Your task to perform on an android device: turn off location Image 0: 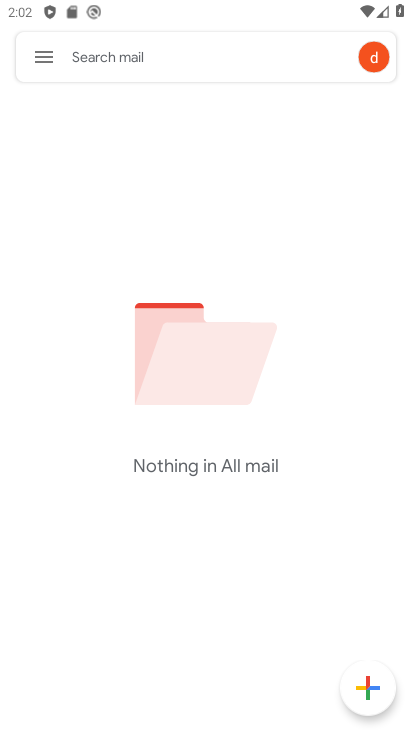
Step 0: press home button
Your task to perform on an android device: turn off location Image 1: 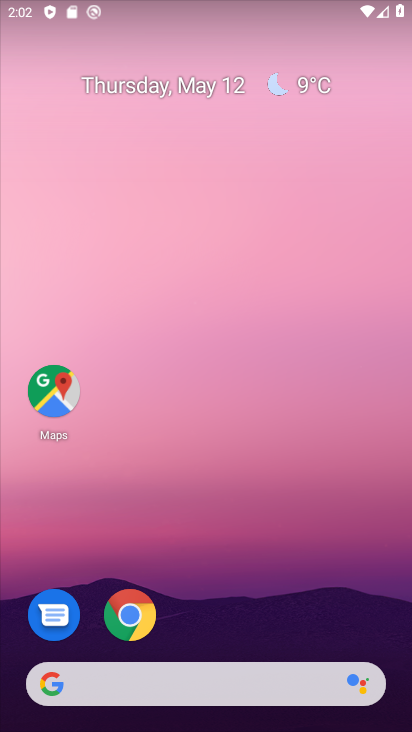
Step 1: drag from (220, 682) to (188, 197)
Your task to perform on an android device: turn off location Image 2: 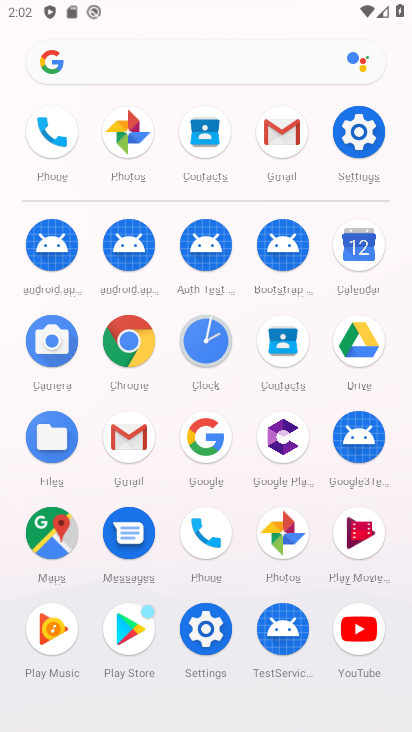
Step 2: click (360, 143)
Your task to perform on an android device: turn off location Image 3: 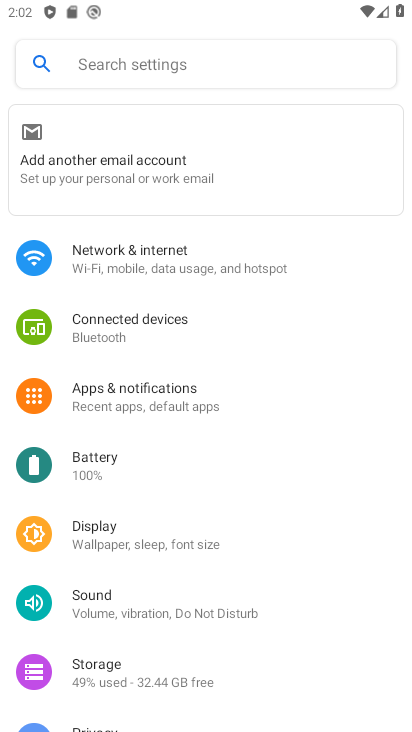
Step 3: drag from (171, 633) to (144, 188)
Your task to perform on an android device: turn off location Image 4: 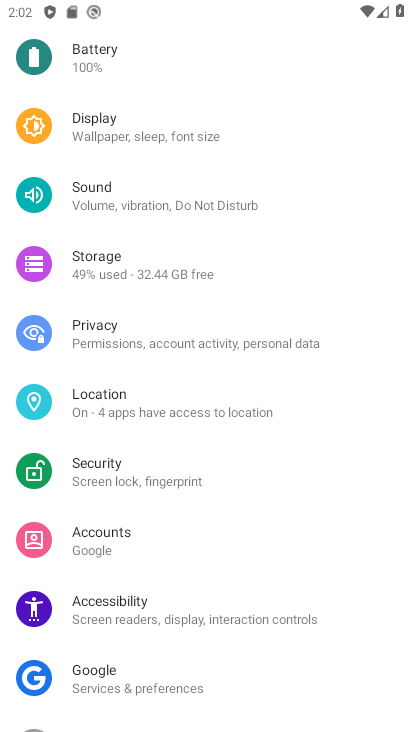
Step 4: click (118, 404)
Your task to perform on an android device: turn off location Image 5: 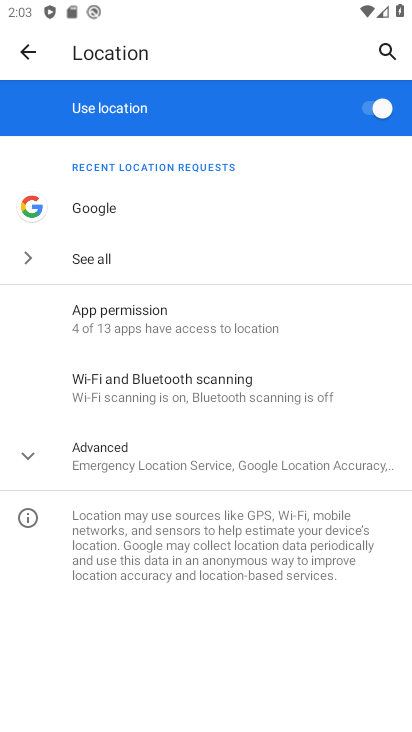
Step 5: click (370, 102)
Your task to perform on an android device: turn off location Image 6: 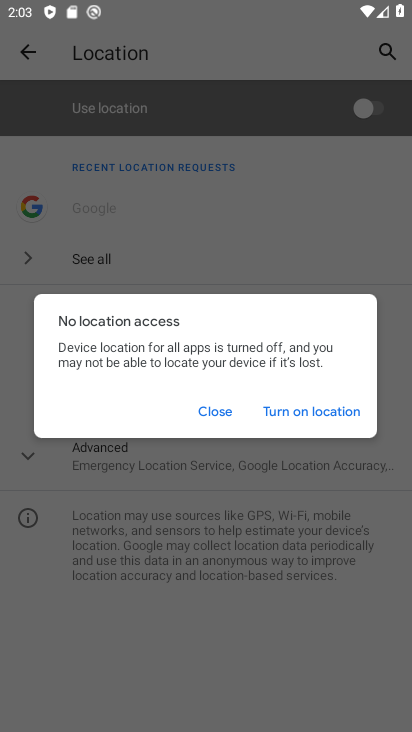
Step 6: click (220, 397)
Your task to perform on an android device: turn off location Image 7: 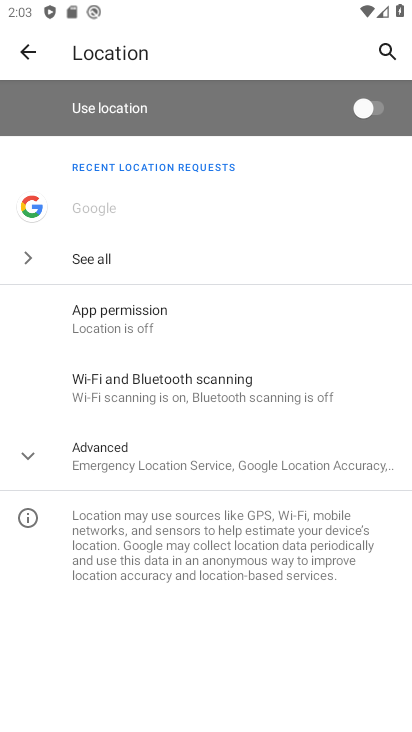
Step 7: task complete